Your task to perform on an android device: What's the weather like in Paris? Image 0: 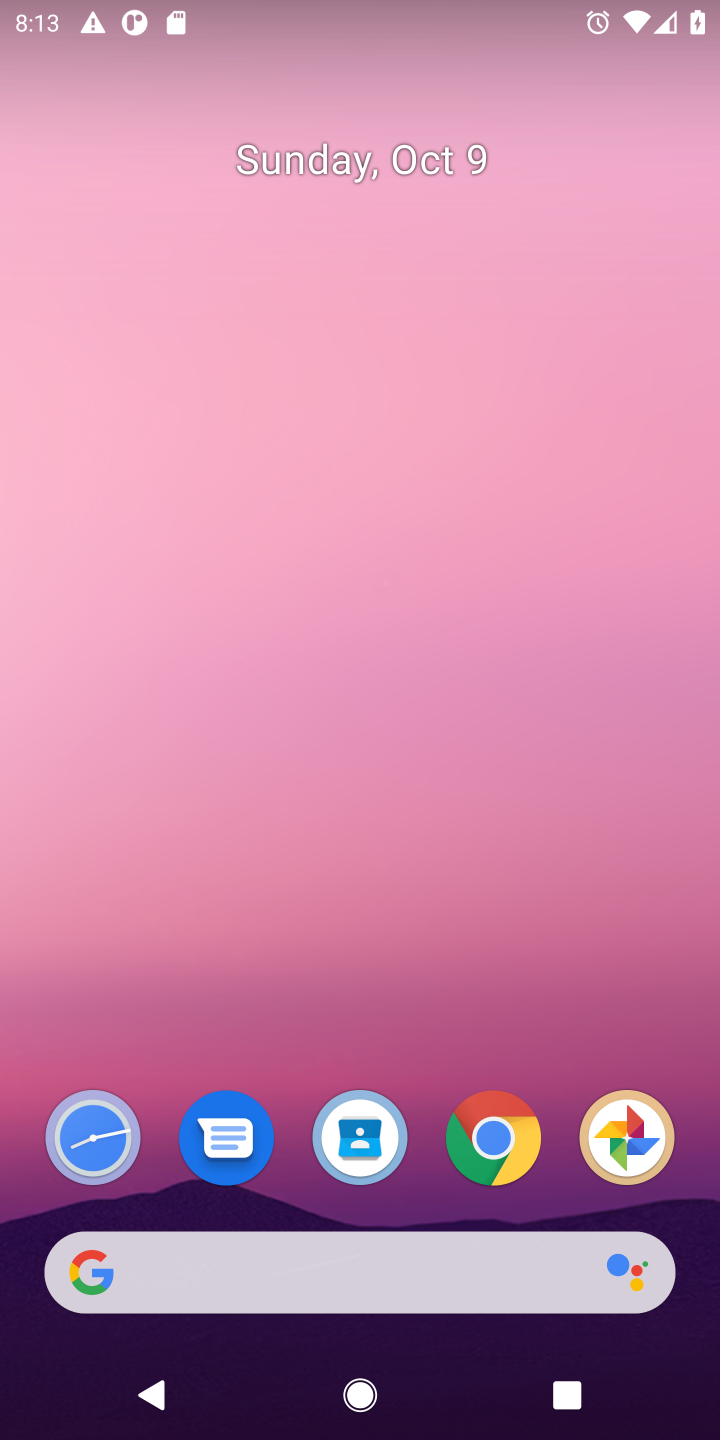
Step 0: drag from (325, 1106) to (337, 273)
Your task to perform on an android device: What's the weather like in Paris? Image 1: 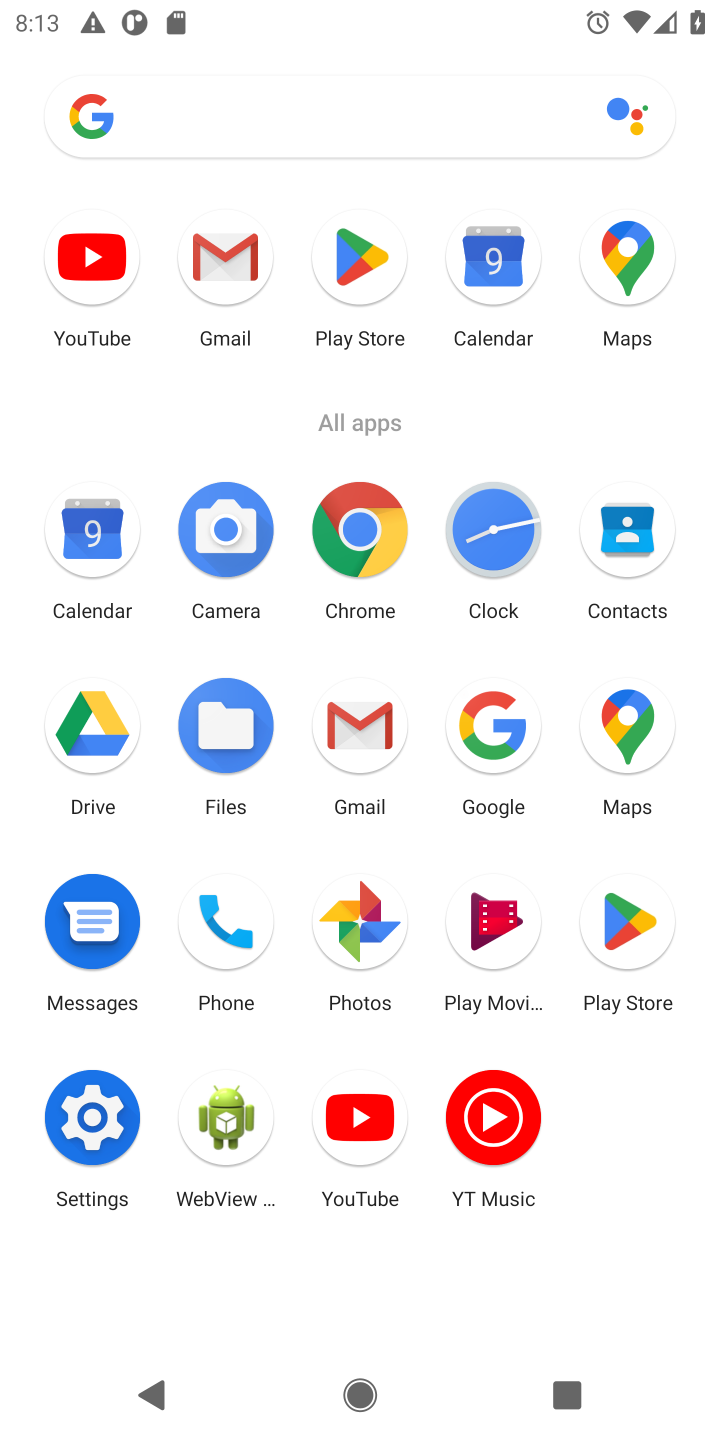
Step 1: click (486, 716)
Your task to perform on an android device: What's the weather like in Paris? Image 2: 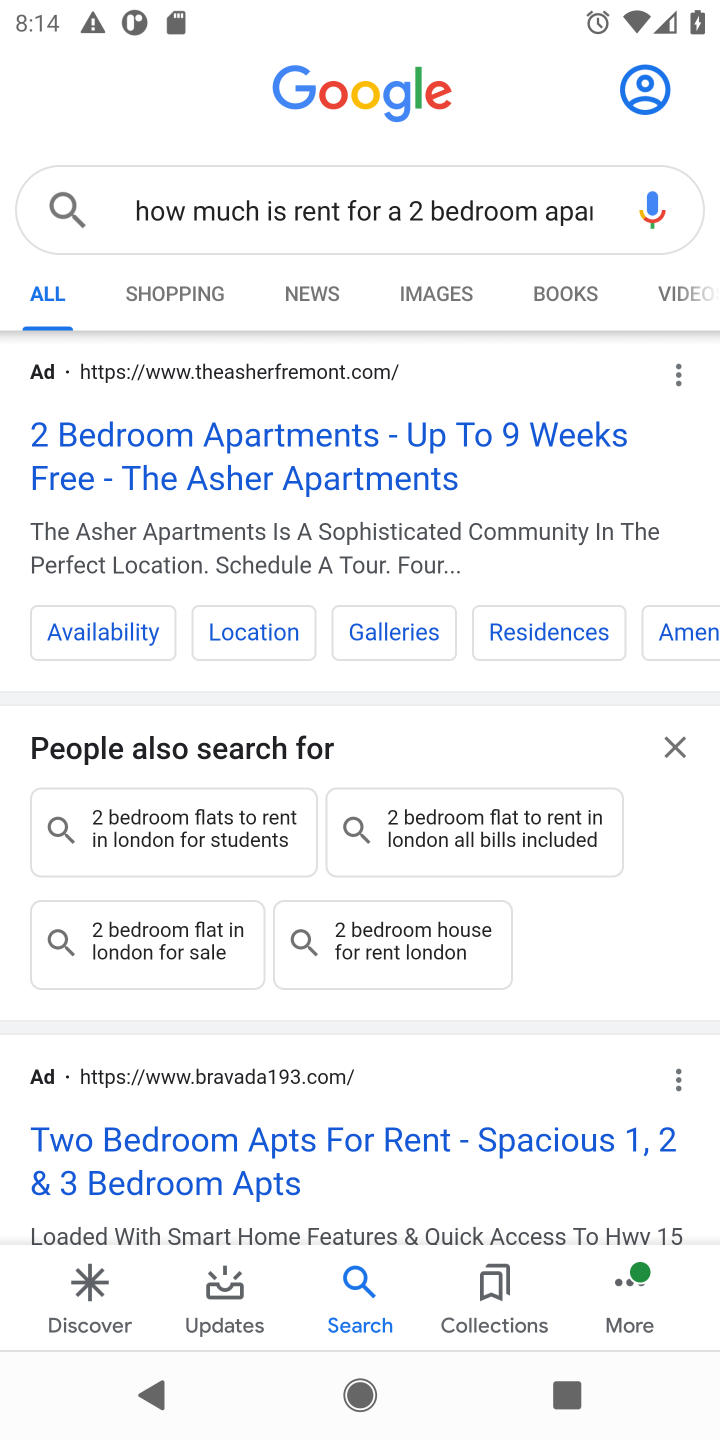
Step 2: click (566, 192)
Your task to perform on an android device: What's the weather like in Paris? Image 3: 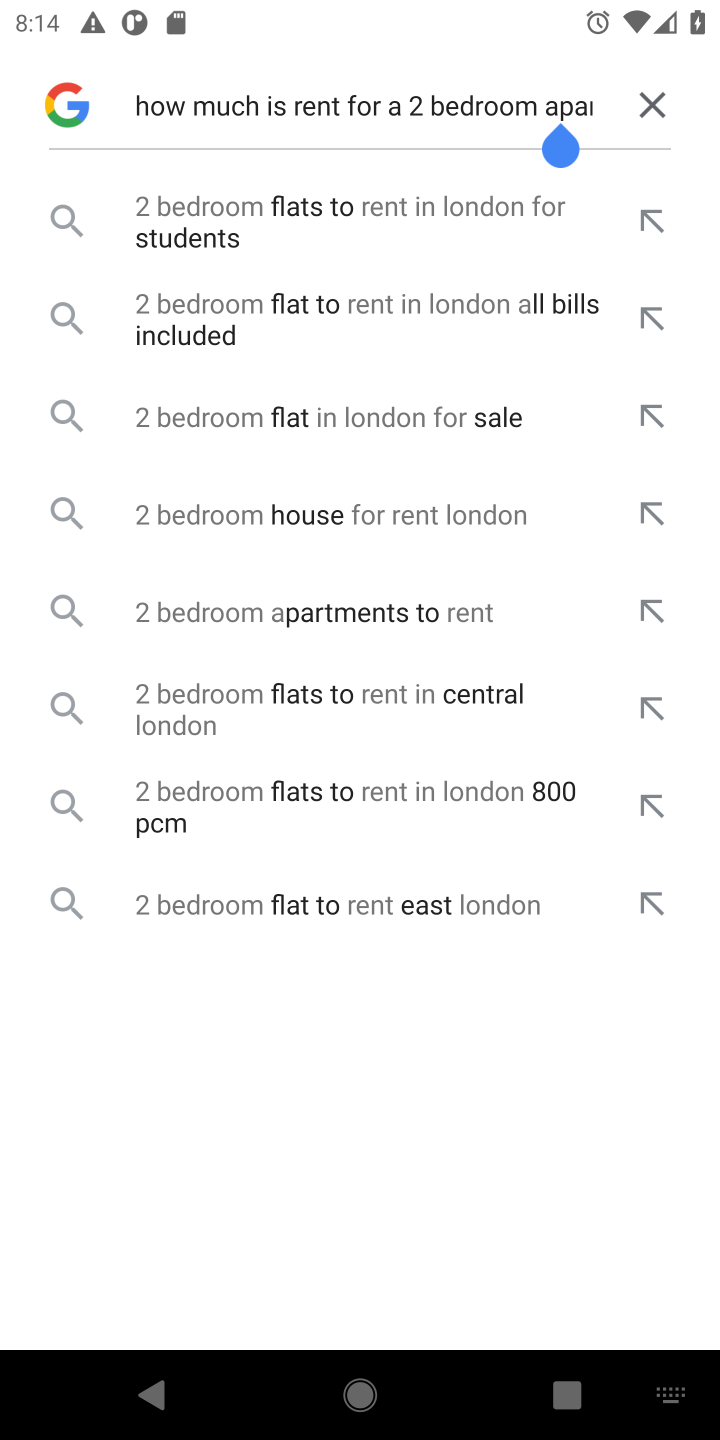
Step 3: click (660, 94)
Your task to perform on an android device: What's the weather like in Paris? Image 4: 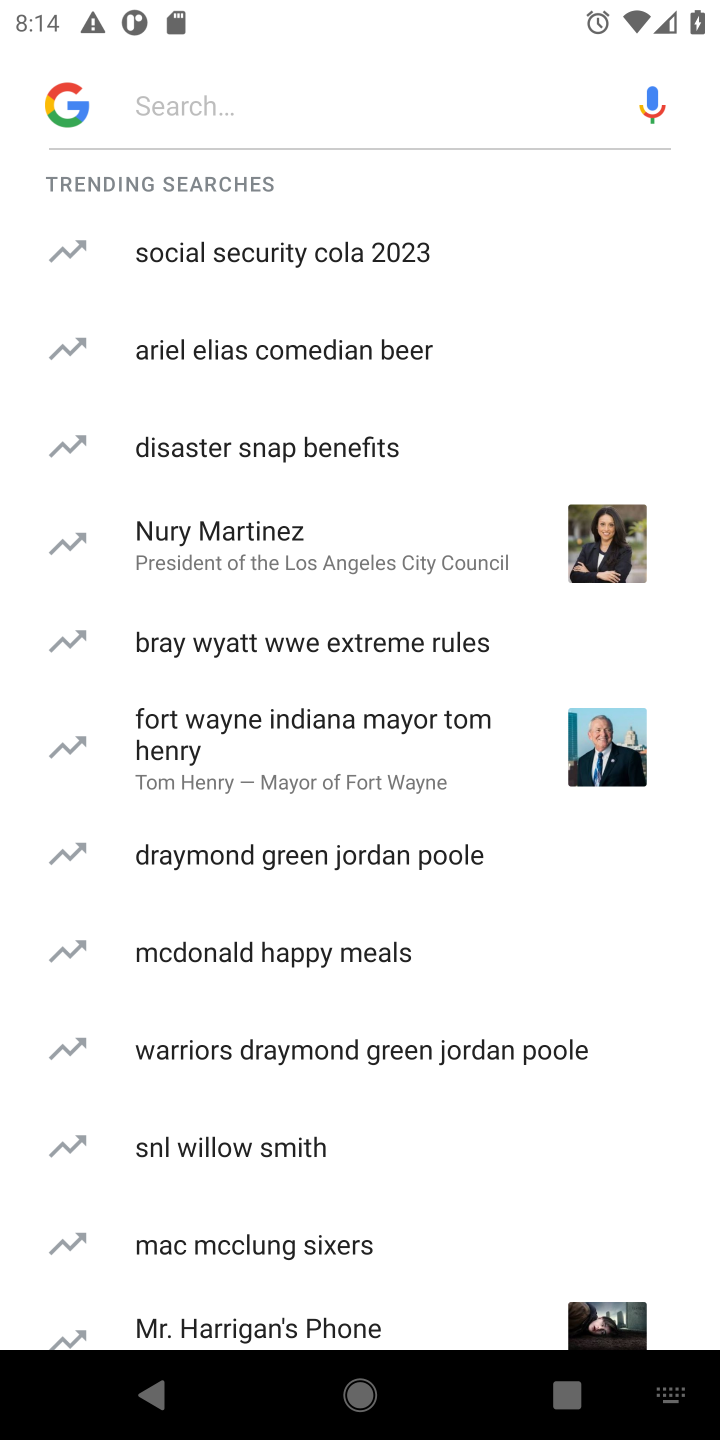
Step 4: drag from (111, 1419) to (583, 1428)
Your task to perform on an android device: What's the weather like in Paris? Image 5: 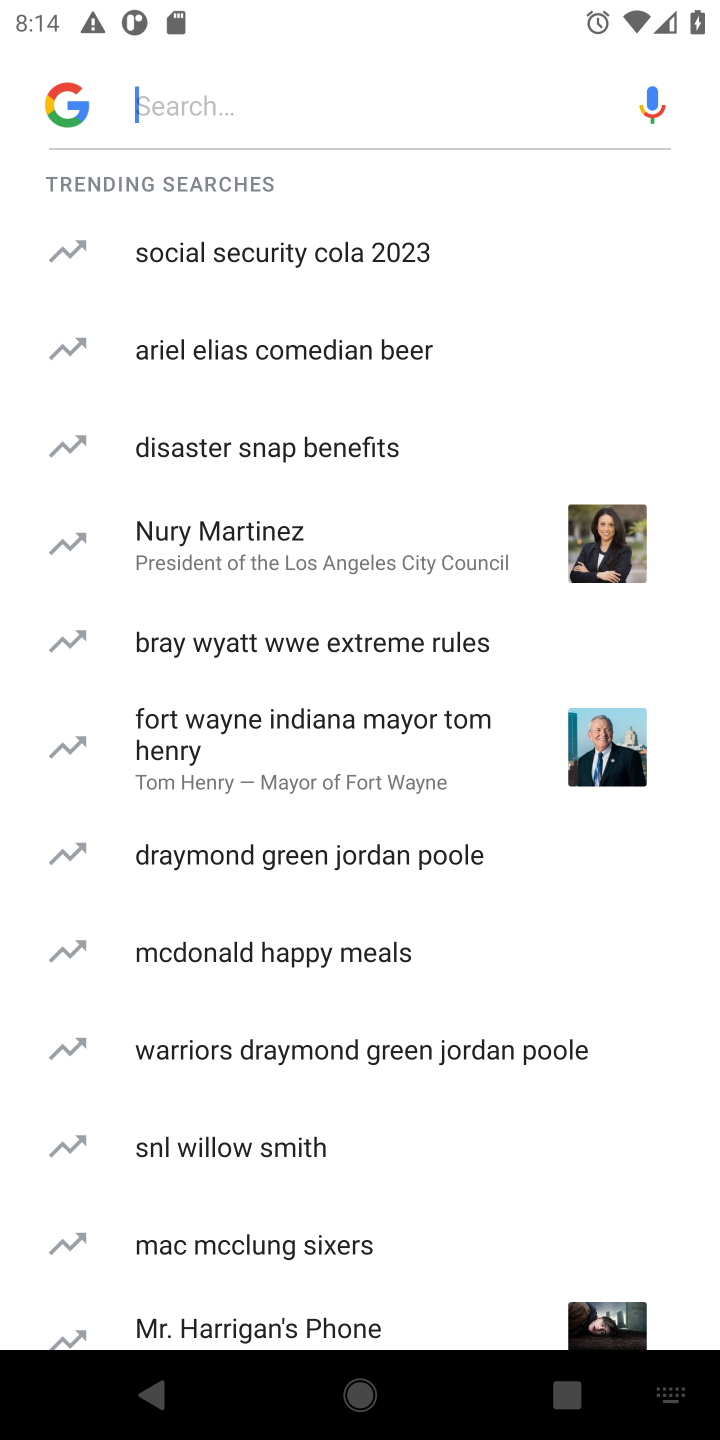
Step 5: click (271, 109)
Your task to perform on an android device: What's the weather like in Paris? Image 6: 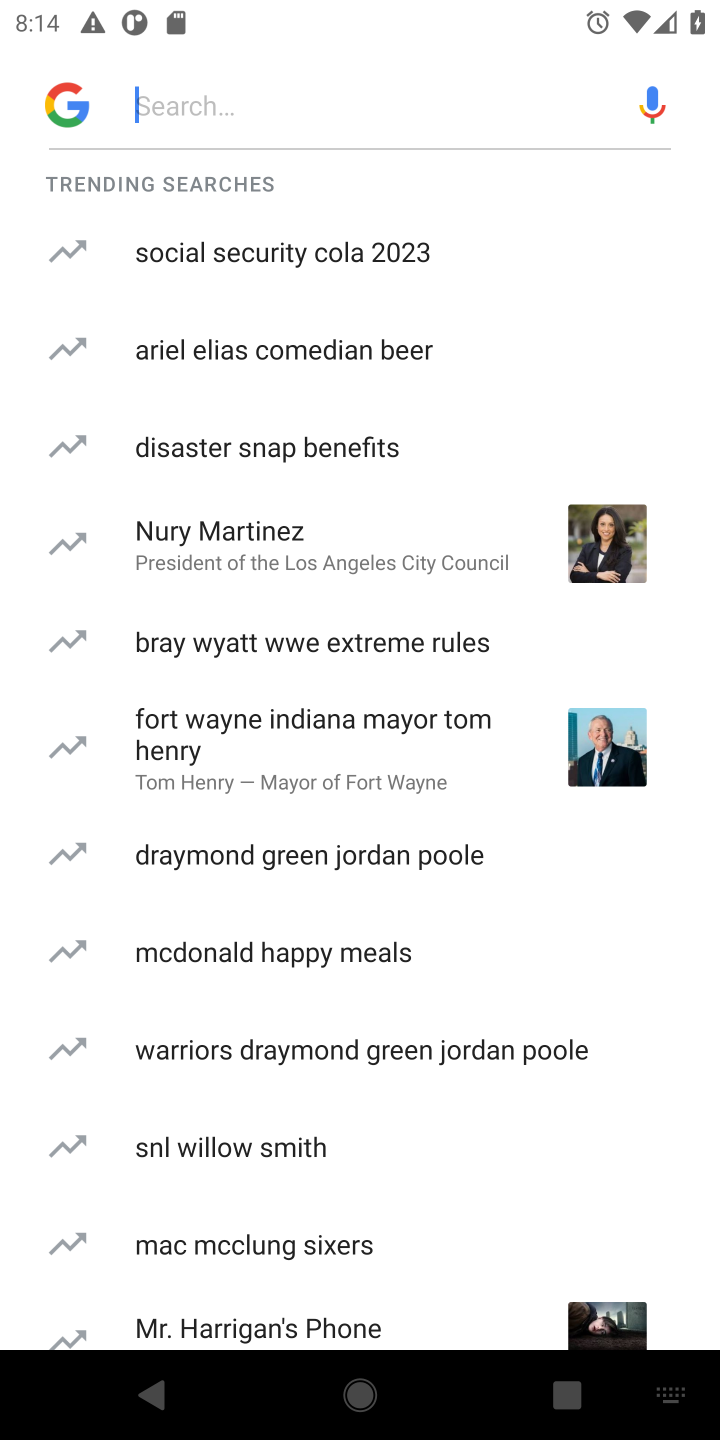
Step 6: type "What's the weather like in Paris? "
Your task to perform on an android device: What's the weather like in Paris? Image 7: 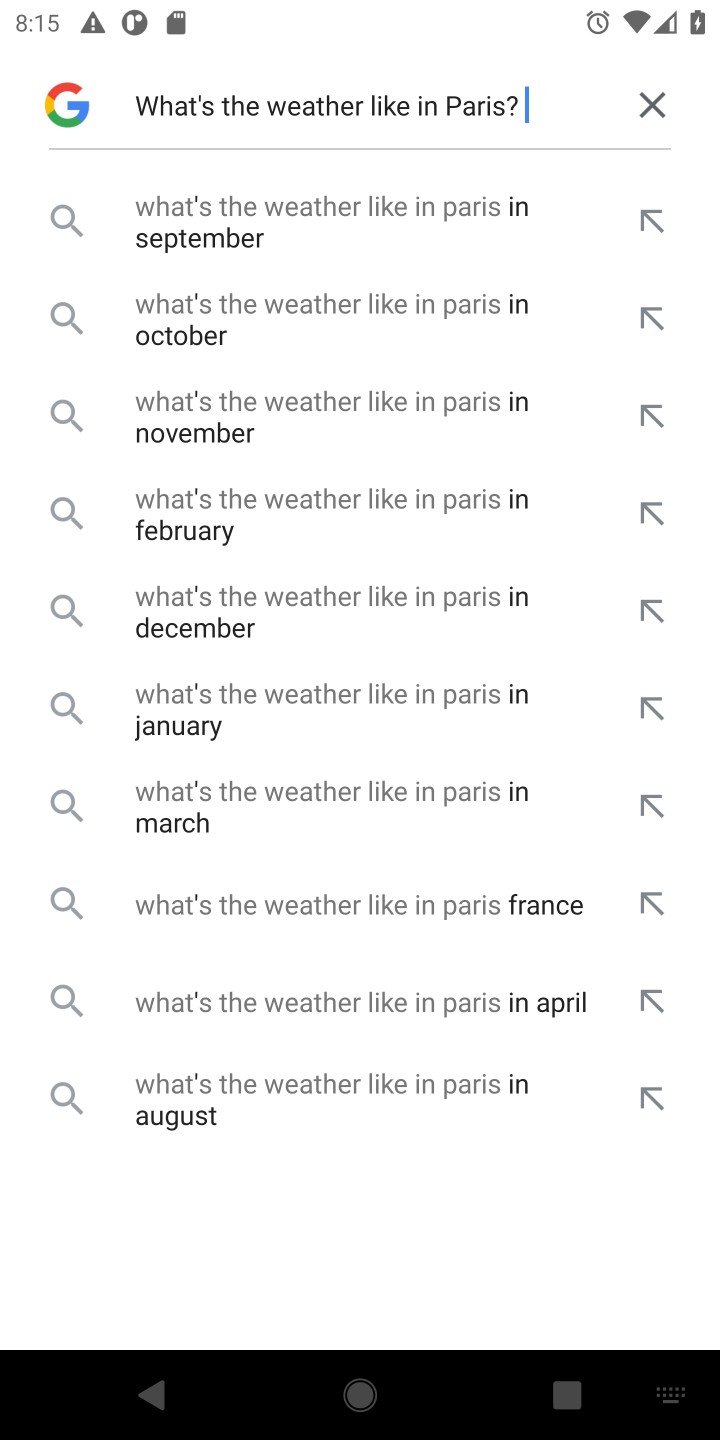
Step 7: click (224, 326)
Your task to perform on an android device: What's the weather like in Paris? Image 8: 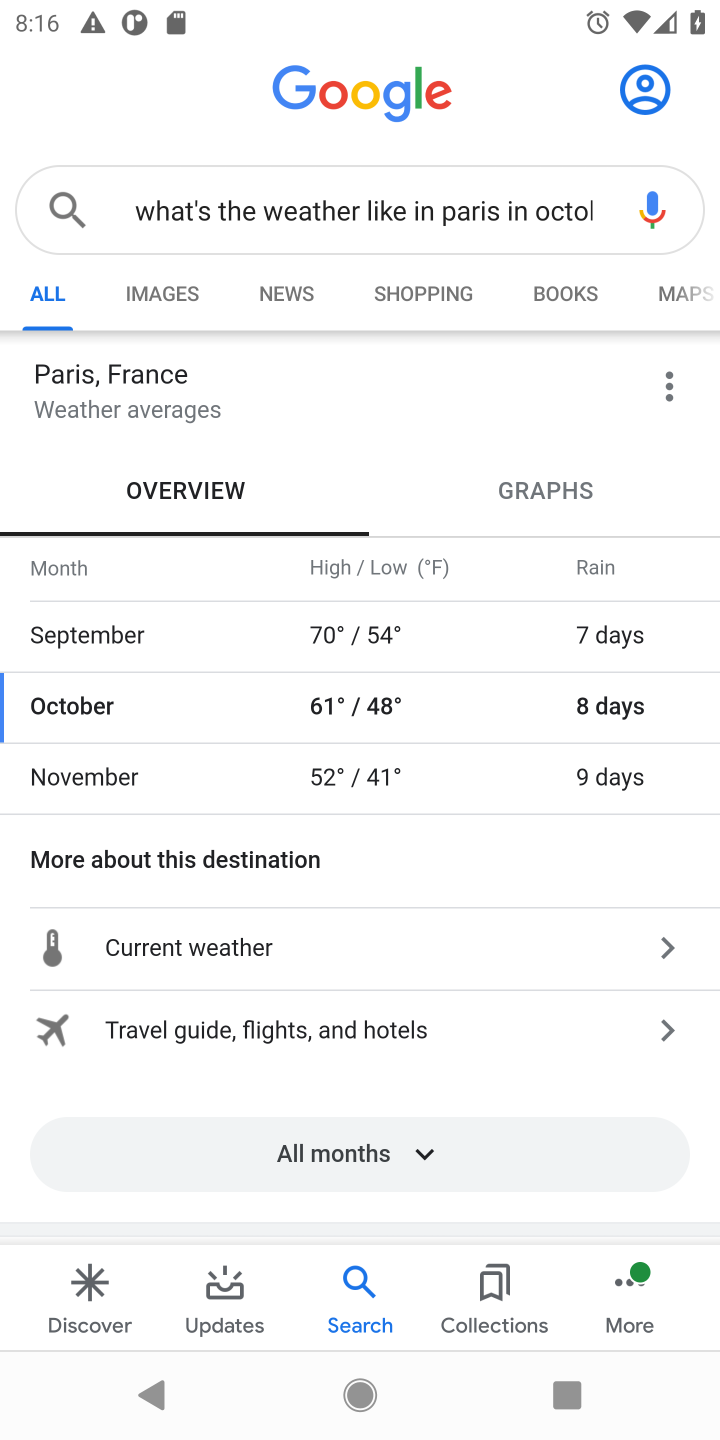
Step 8: task complete